Your task to perform on an android device: see tabs open on other devices in the chrome app Image 0: 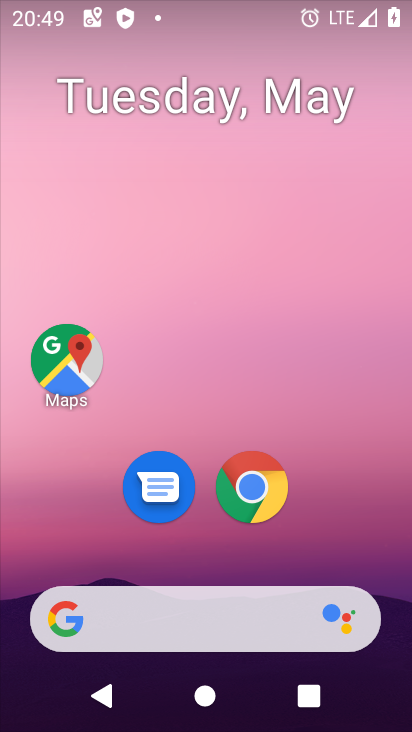
Step 0: press home button
Your task to perform on an android device: see tabs open on other devices in the chrome app Image 1: 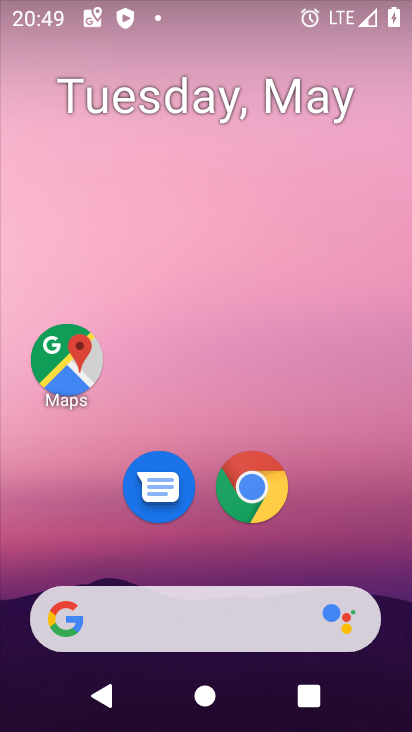
Step 1: click (248, 494)
Your task to perform on an android device: see tabs open on other devices in the chrome app Image 2: 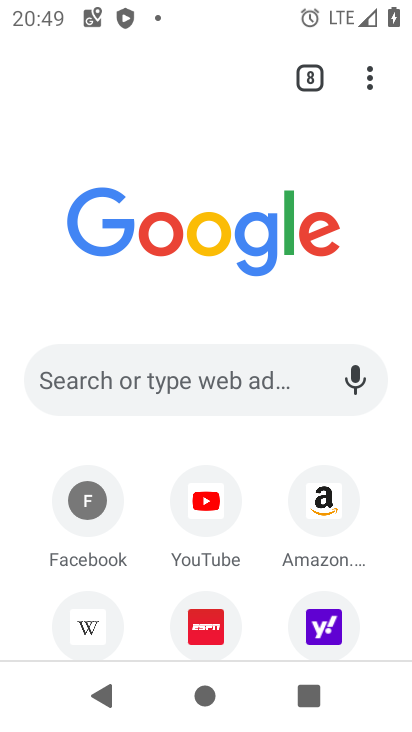
Step 2: click (371, 78)
Your task to perform on an android device: see tabs open on other devices in the chrome app Image 3: 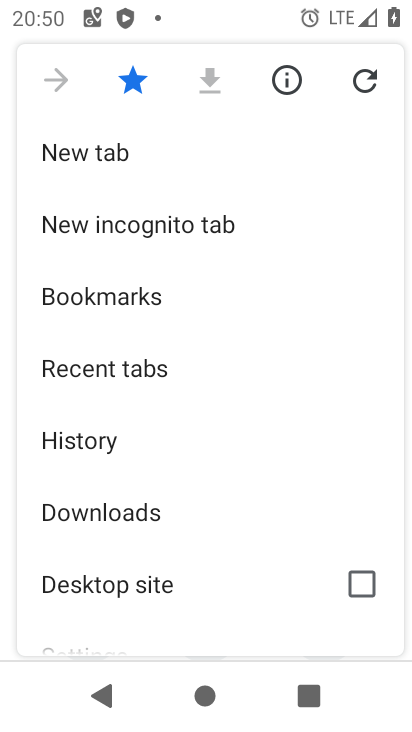
Step 3: click (130, 365)
Your task to perform on an android device: see tabs open on other devices in the chrome app Image 4: 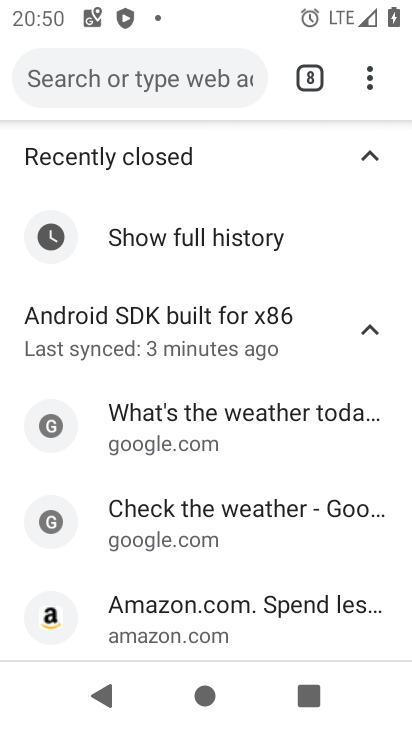
Step 4: task complete